Your task to perform on an android device: turn on bluetooth scan Image 0: 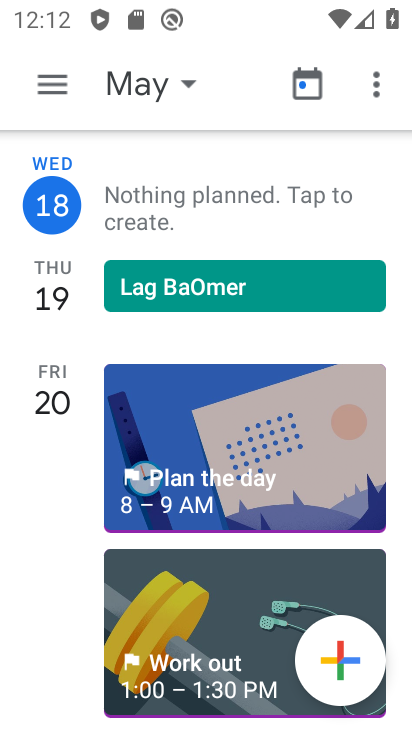
Step 0: press home button
Your task to perform on an android device: turn on bluetooth scan Image 1: 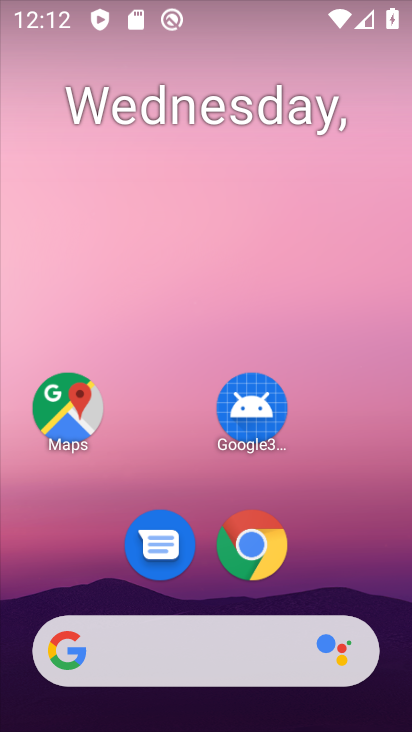
Step 1: drag from (368, 534) to (221, 135)
Your task to perform on an android device: turn on bluetooth scan Image 2: 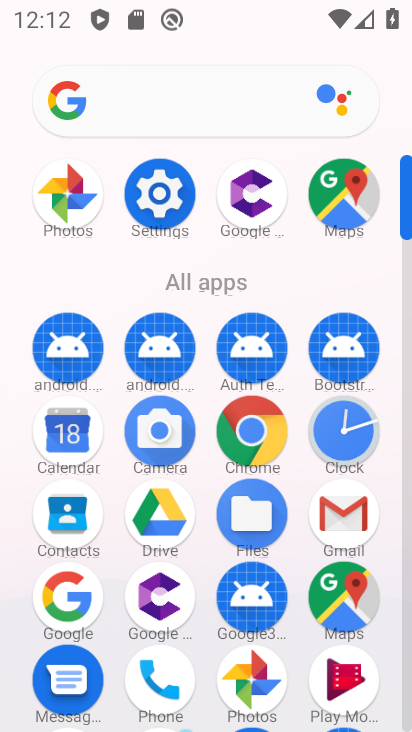
Step 2: click (153, 210)
Your task to perform on an android device: turn on bluetooth scan Image 3: 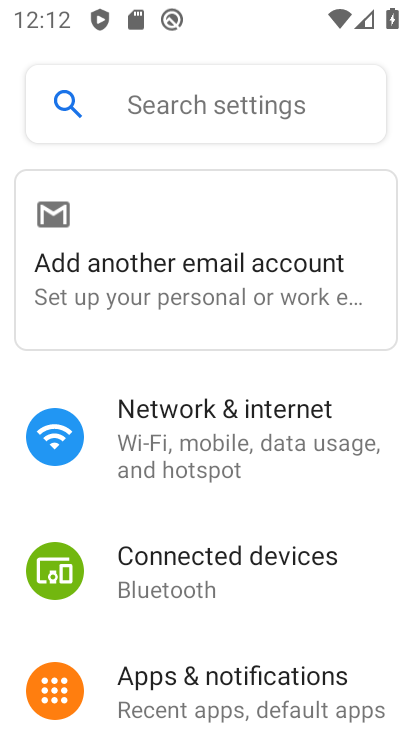
Step 3: drag from (313, 566) to (207, 200)
Your task to perform on an android device: turn on bluetooth scan Image 4: 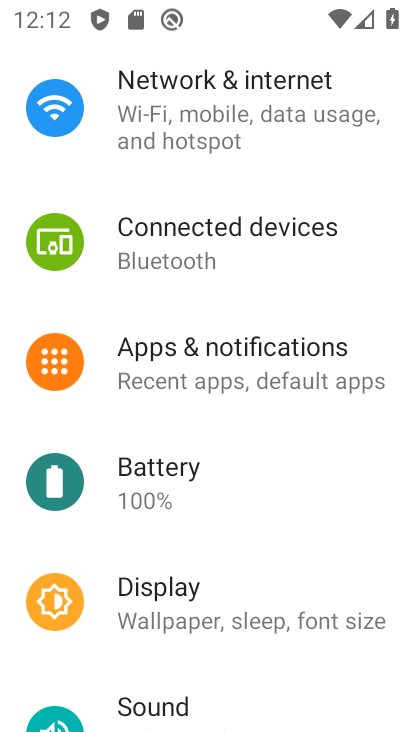
Step 4: drag from (218, 529) to (153, 304)
Your task to perform on an android device: turn on bluetooth scan Image 5: 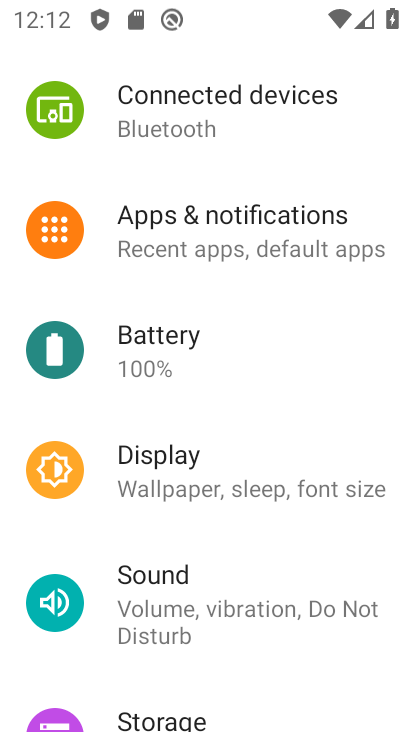
Step 5: drag from (190, 592) to (150, 302)
Your task to perform on an android device: turn on bluetooth scan Image 6: 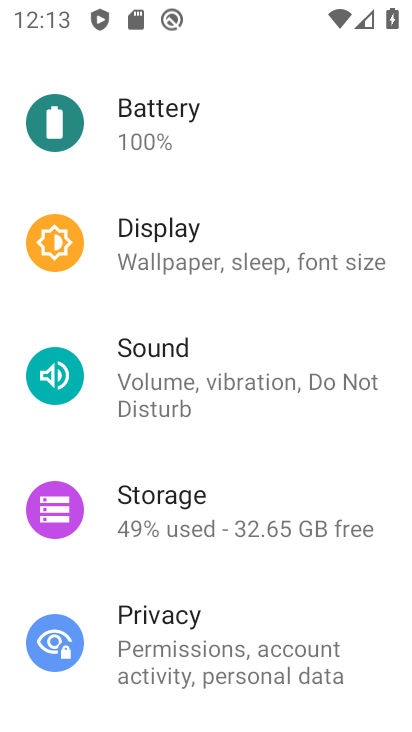
Step 6: drag from (181, 575) to (120, 93)
Your task to perform on an android device: turn on bluetooth scan Image 7: 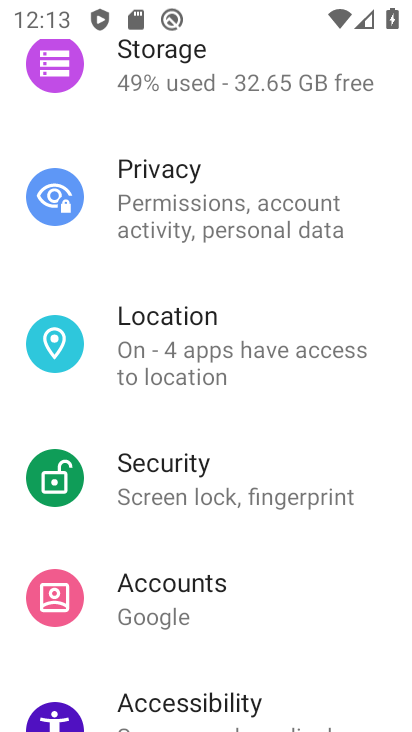
Step 7: click (165, 548)
Your task to perform on an android device: turn on bluetooth scan Image 8: 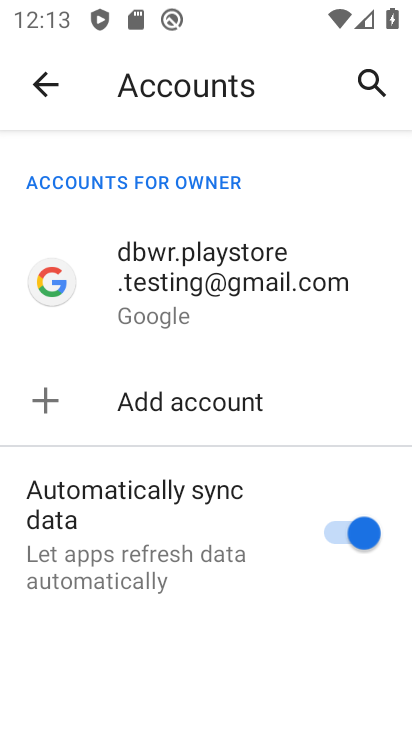
Step 8: click (36, 98)
Your task to perform on an android device: turn on bluetooth scan Image 9: 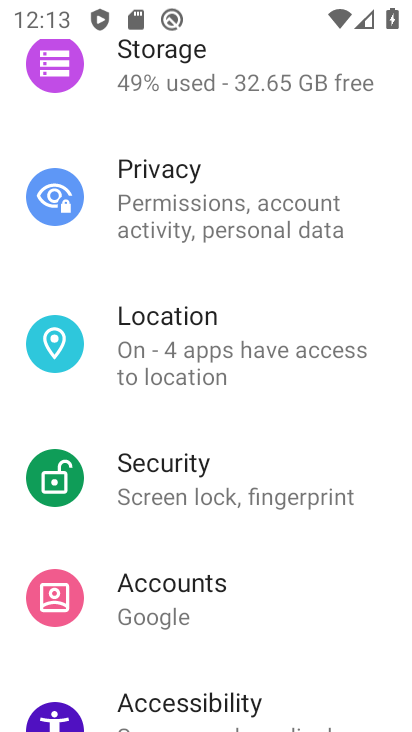
Step 9: click (164, 388)
Your task to perform on an android device: turn on bluetooth scan Image 10: 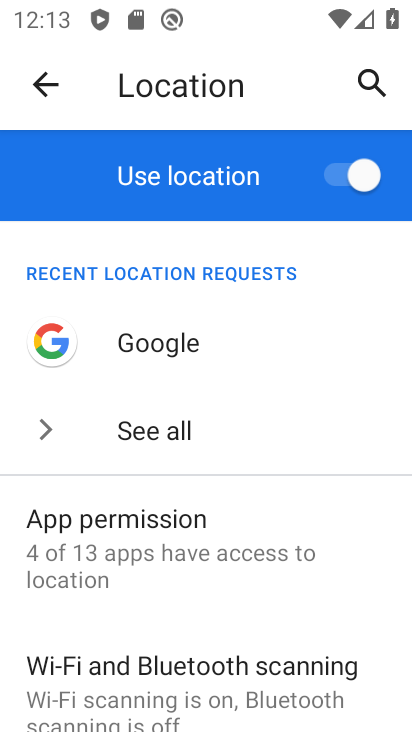
Step 10: drag from (208, 579) to (163, 272)
Your task to perform on an android device: turn on bluetooth scan Image 11: 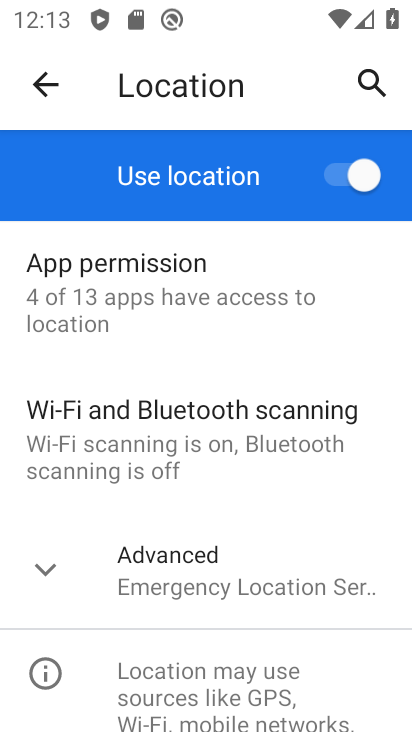
Step 11: click (203, 555)
Your task to perform on an android device: turn on bluetooth scan Image 12: 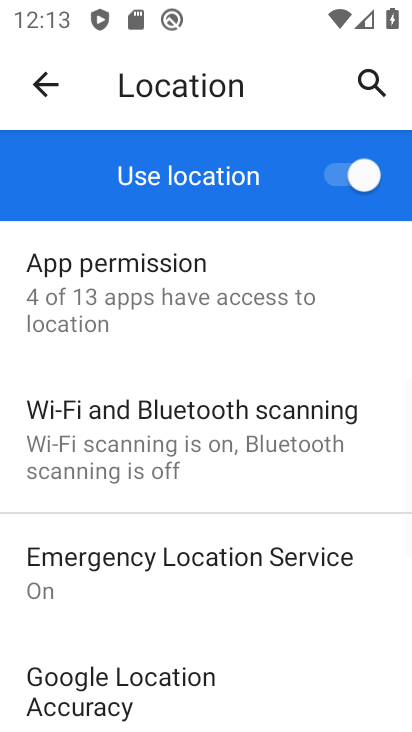
Step 12: click (194, 498)
Your task to perform on an android device: turn on bluetooth scan Image 13: 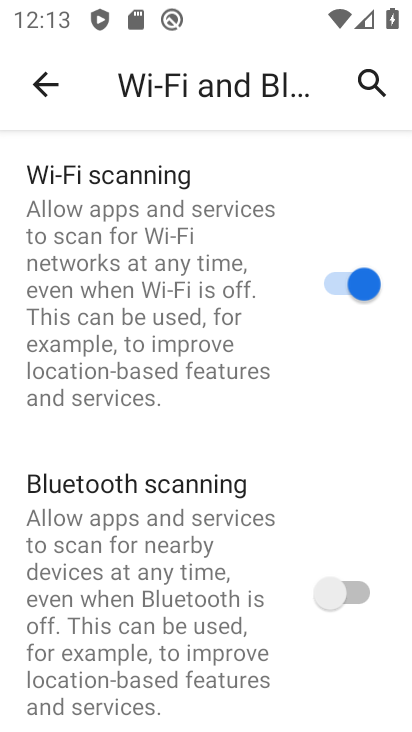
Step 13: click (323, 631)
Your task to perform on an android device: turn on bluetooth scan Image 14: 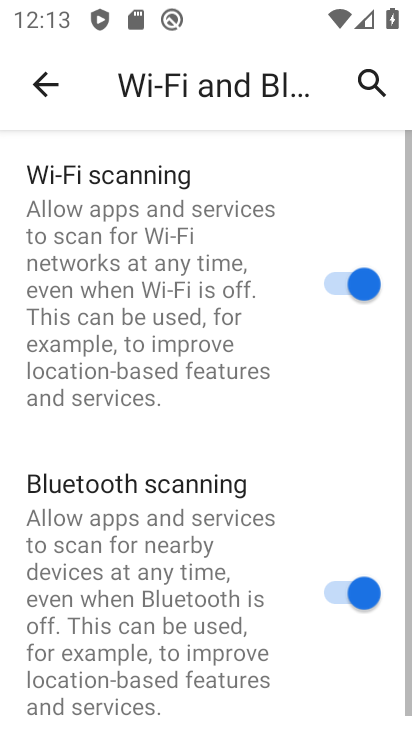
Step 14: task complete